Your task to perform on an android device: move an email to a new category in the gmail app Image 0: 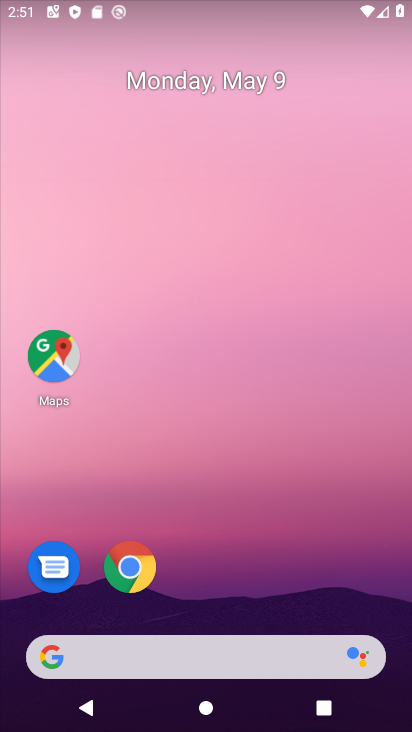
Step 0: drag from (274, 562) to (254, 119)
Your task to perform on an android device: move an email to a new category in the gmail app Image 1: 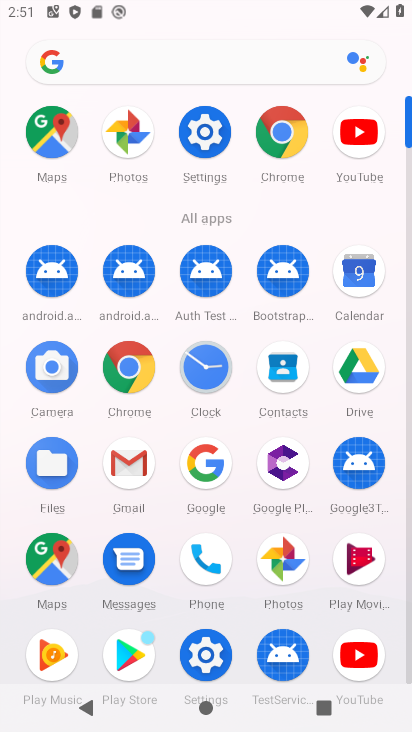
Step 1: click (122, 455)
Your task to perform on an android device: move an email to a new category in the gmail app Image 2: 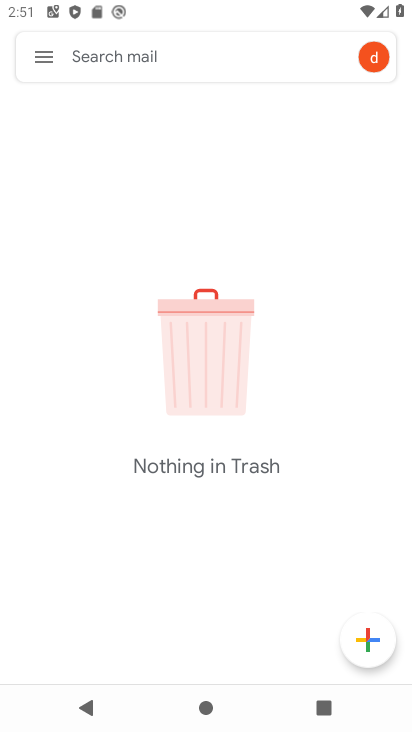
Step 2: click (53, 53)
Your task to perform on an android device: move an email to a new category in the gmail app Image 3: 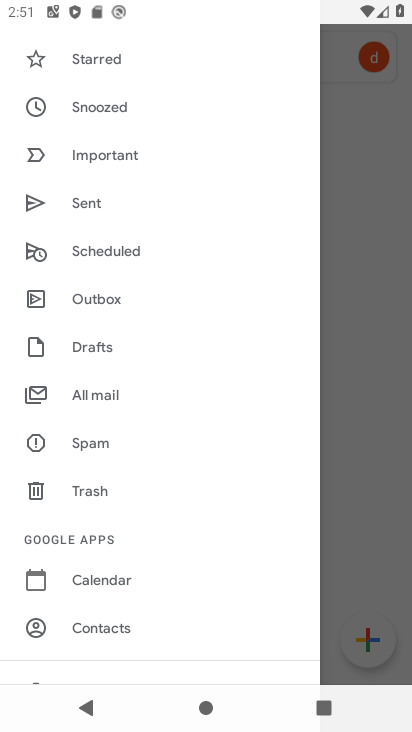
Step 3: click (122, 394)
Your task to perform on an android device: move an email to a new category in the gmail app Image 4: 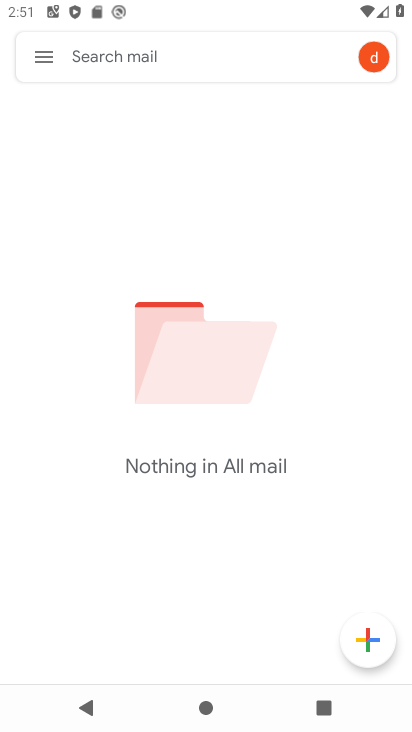
Step 4: task complete